Your task to perform on an android device: turn off wifi Image 0: 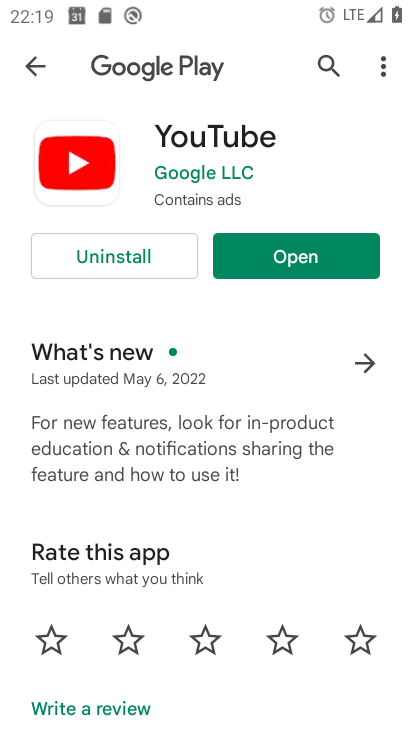
Step 0: press home button
Your task to perform on an android device: turn off wifi Image 1: 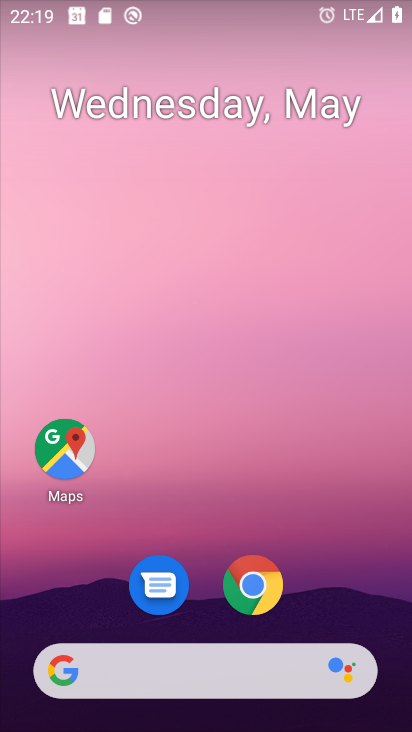
Step 1: drag from (256, 473) to (230, 58)
Your task to perform on an android device: turn off wifi Image 2: 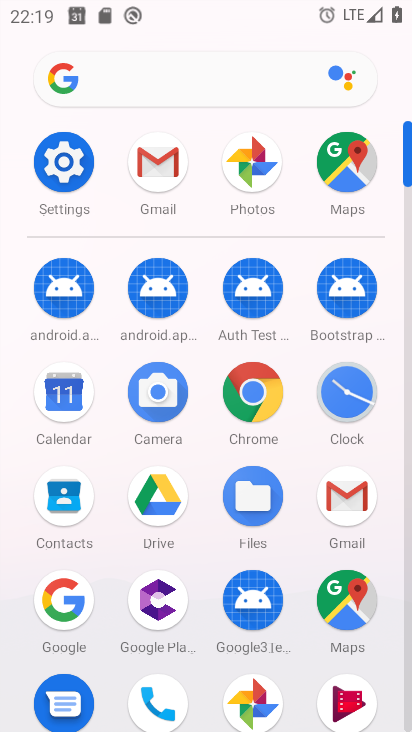
Step 2: click (75, 167)
Your task to perform on an android device: turn off wifi Image 3: 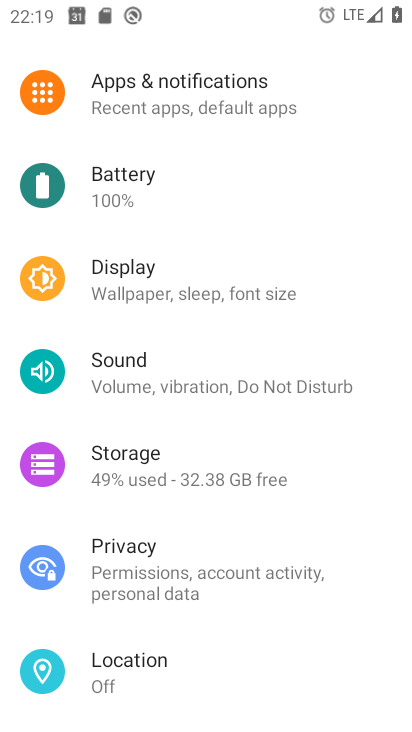
Step 3: drag from (215, 210) to (283, 651)
Your task to perform on an android device: turn off wifi Image 4: 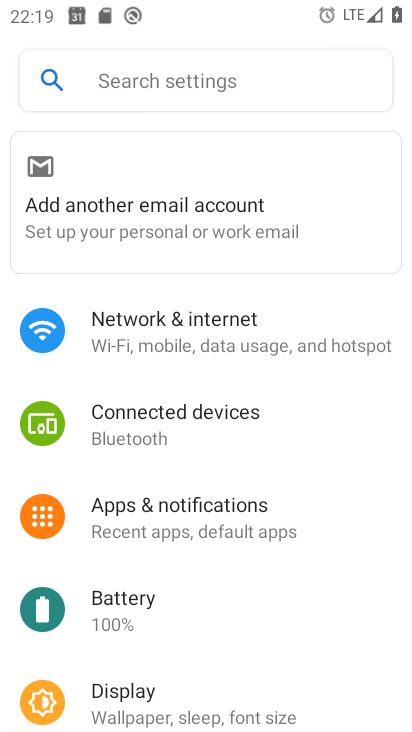
Step 4: click (244, 336)
Your task to perform on an android device: turn off wifi Image 5: 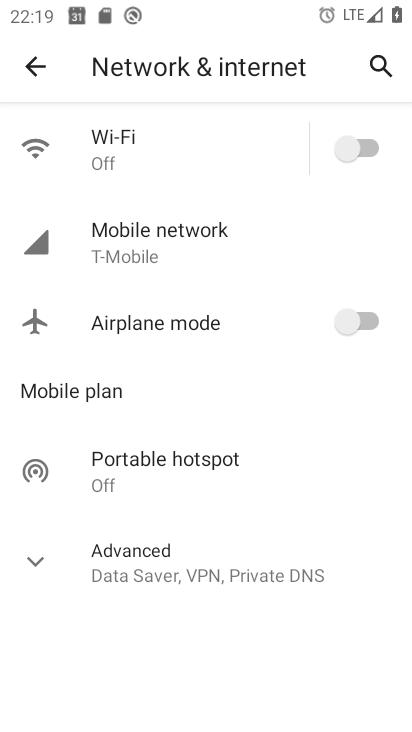
Step 5: click (149, 151)
Your task to perform on an android device: turn off wifi Image 6: 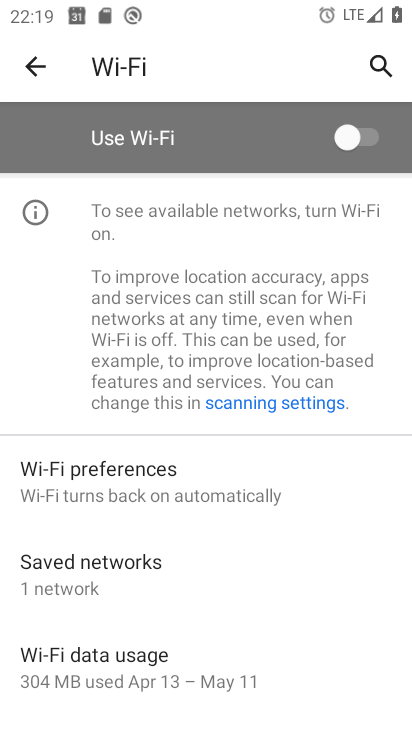
Step 6: task complete